Your task to perform on an android device: uninstall "Google Duo" Image 0: 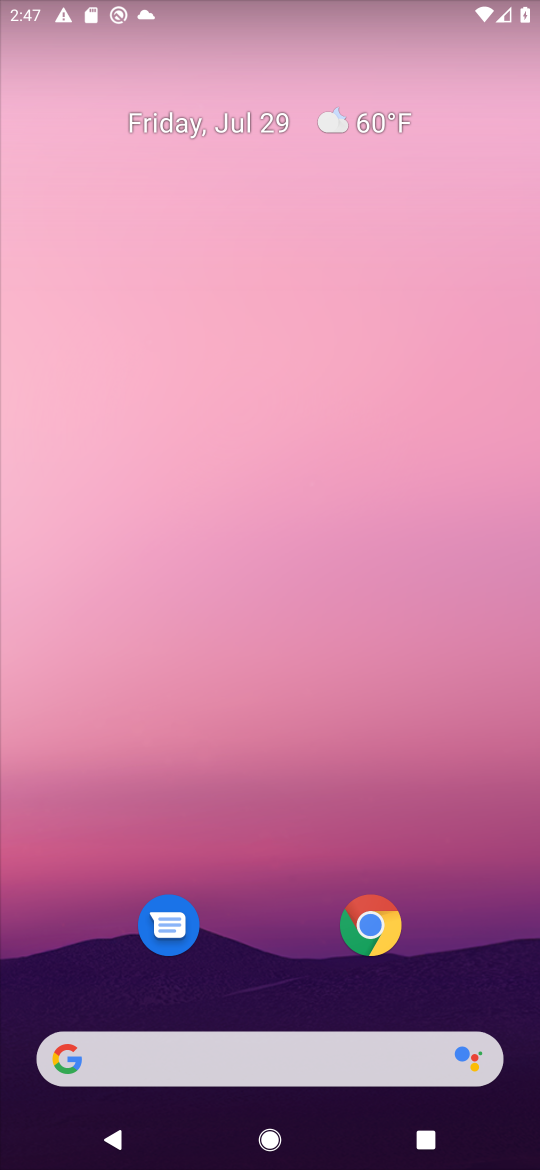
Step 0: drag from (275, 1012) to (287, 138)
Your task to perform on an android device: uninstall "Google Duo" Image 1: 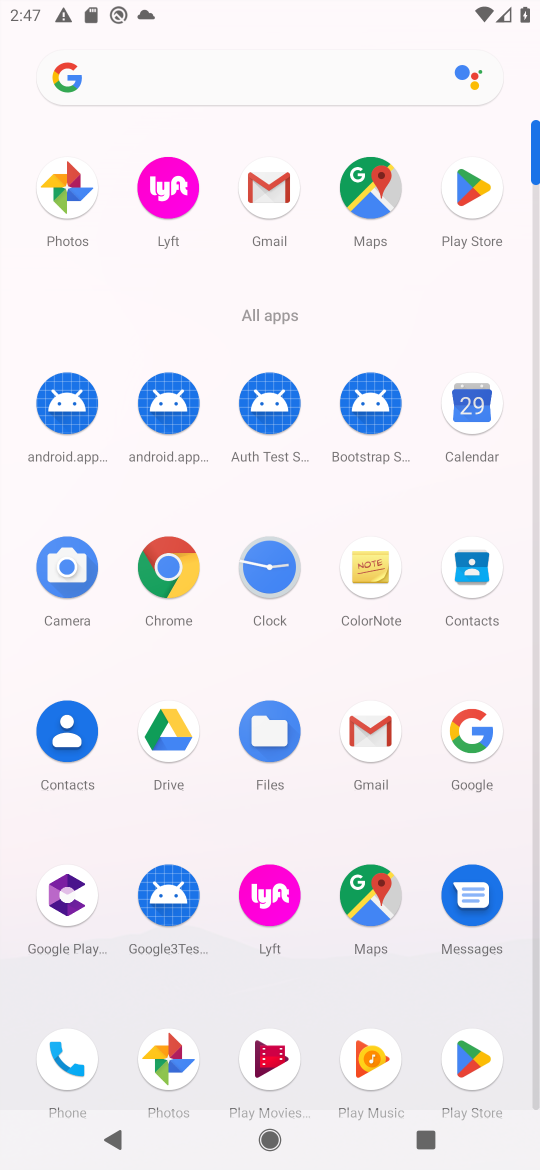
Step 1: click (466, 190)
Your task to perform on an android device: uninstall "Google Duo" Image 2: 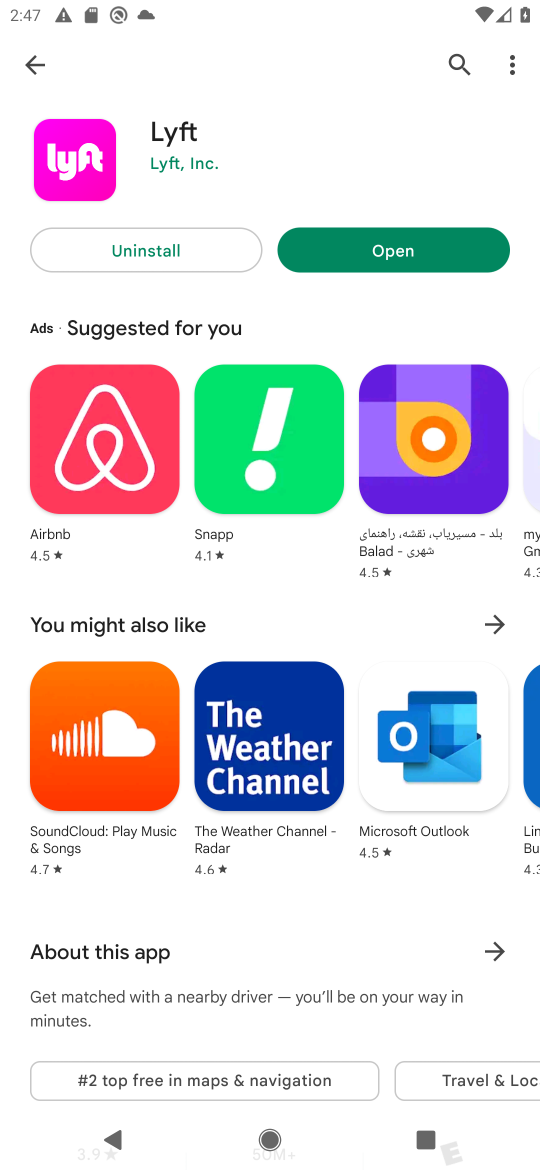
Step 2: click (449, 62)
Your task to perform on an android device: uninstall "Google Duo" Image 3: 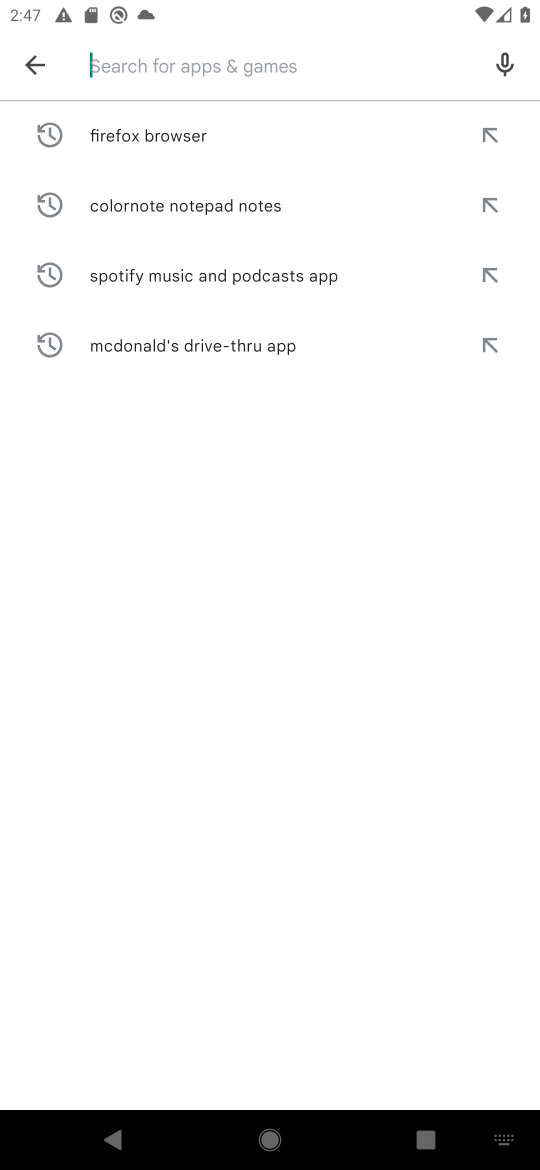
Step 3: click (346, 68)
Your task to perform on an android device: uninstall "Google Duo" Image 4: 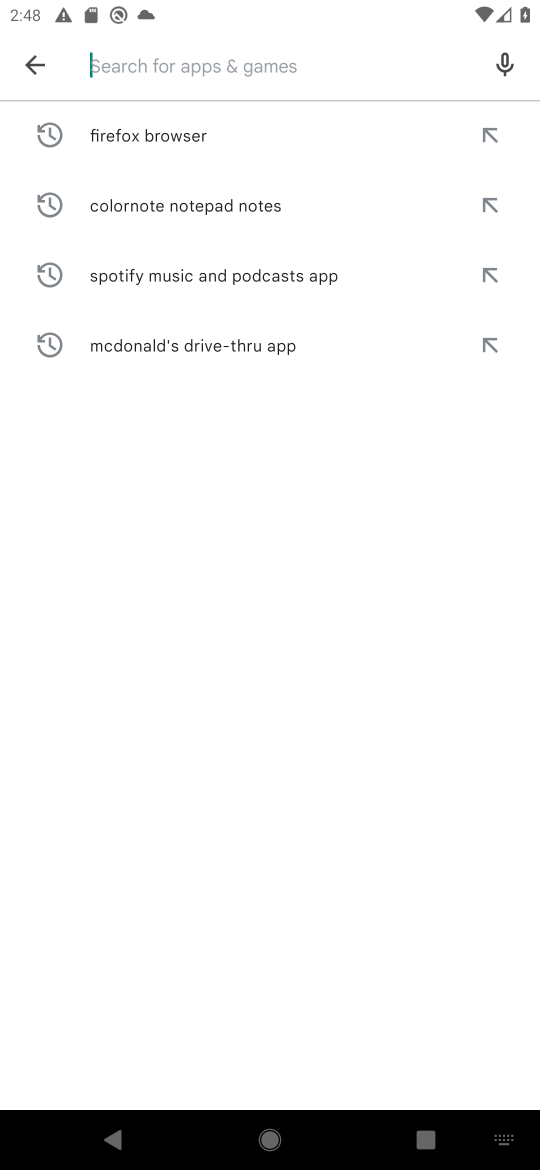
Step 4: type "Google Duo"
Your task to perform on an android device: uninstall "Google Duo" Image 5: 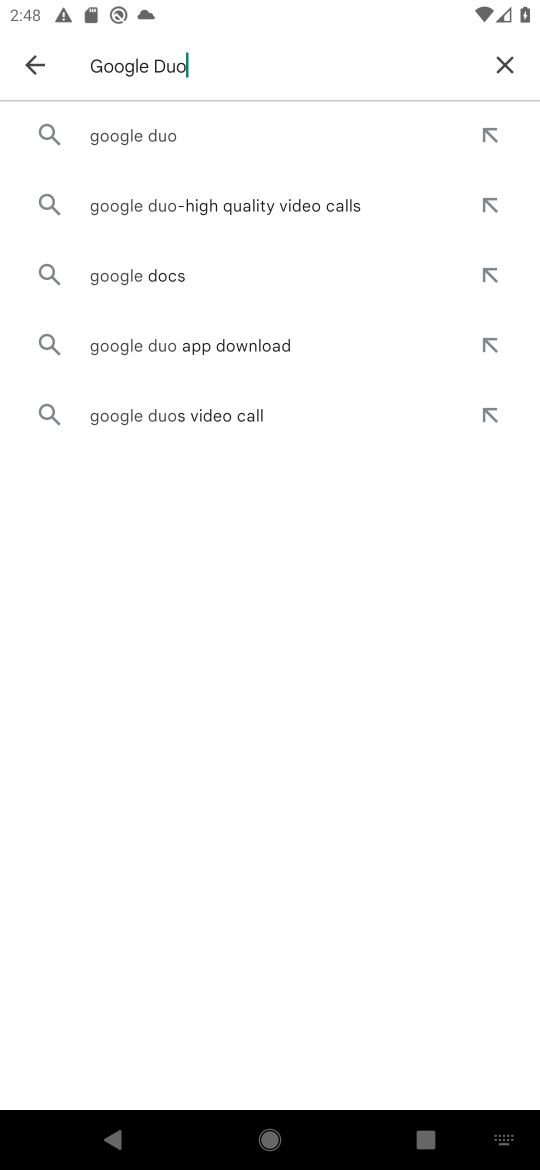
Step 5: click (111, 144)
Your task to perform on an android device: uninstall "Google Duo" Image 6: 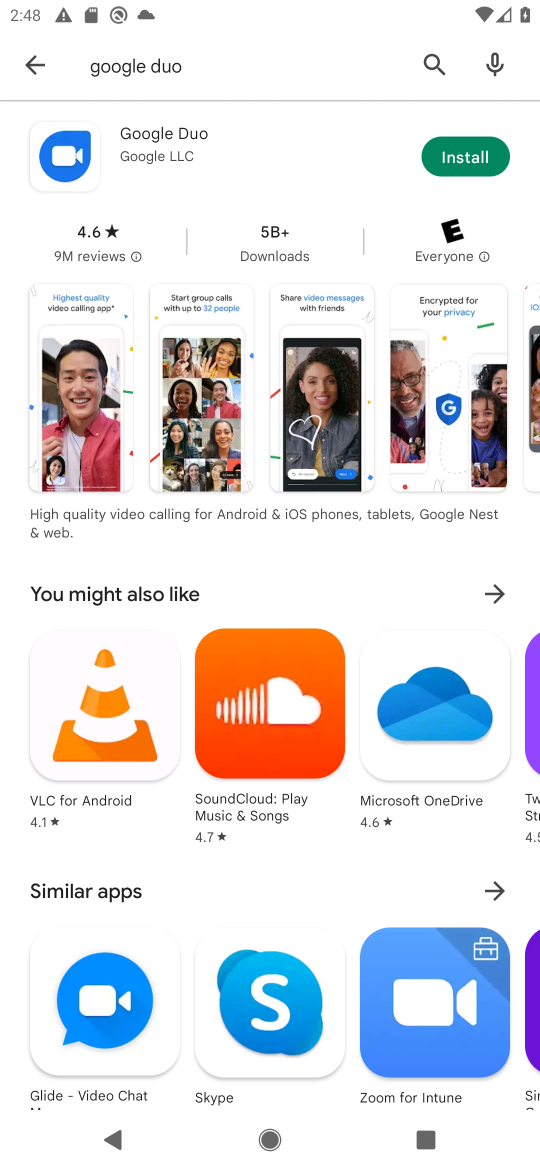
Step 6: task complete